Your task to perform on an android device: toggle data saver in the chrome app Image 0: 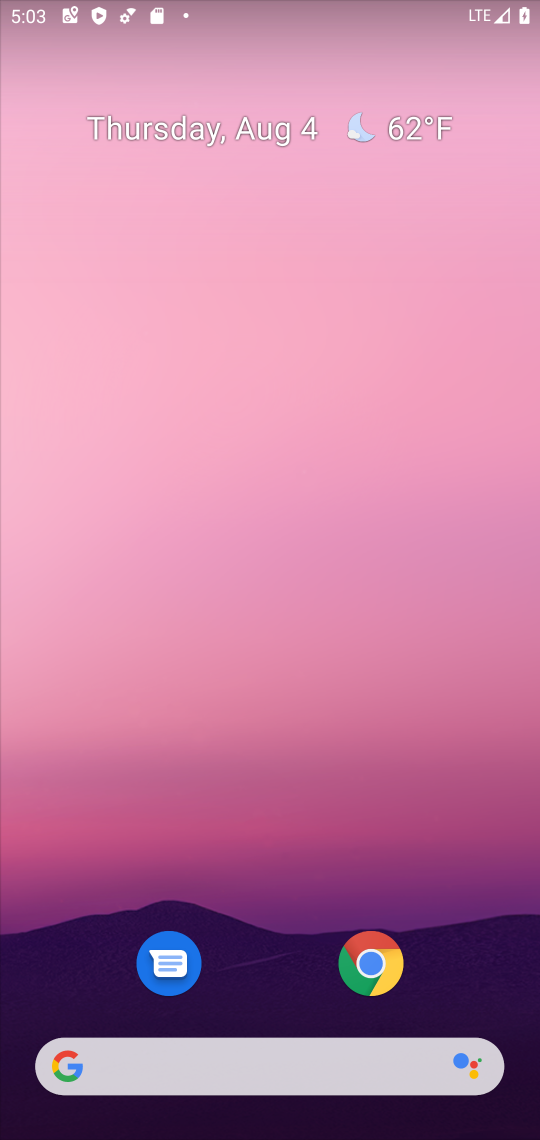
Step 0: click (385, 959)
Your task to perform on an android device: toggle data saver in the chrome app Image 1: 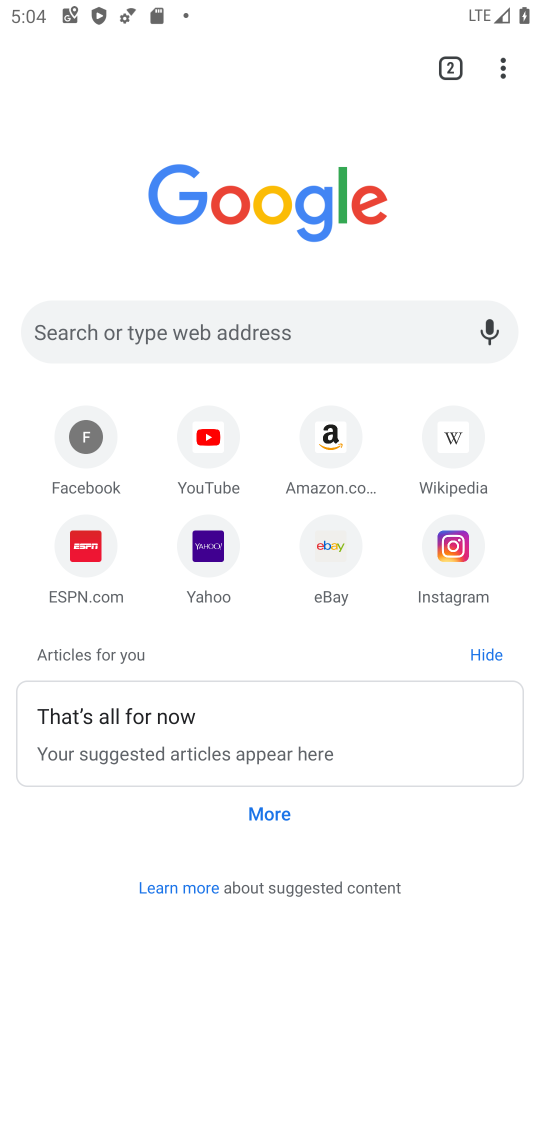
Step 1: click (505, 63)
Your task to perform on an android device: toggle data saver in the chrome app Image 2: 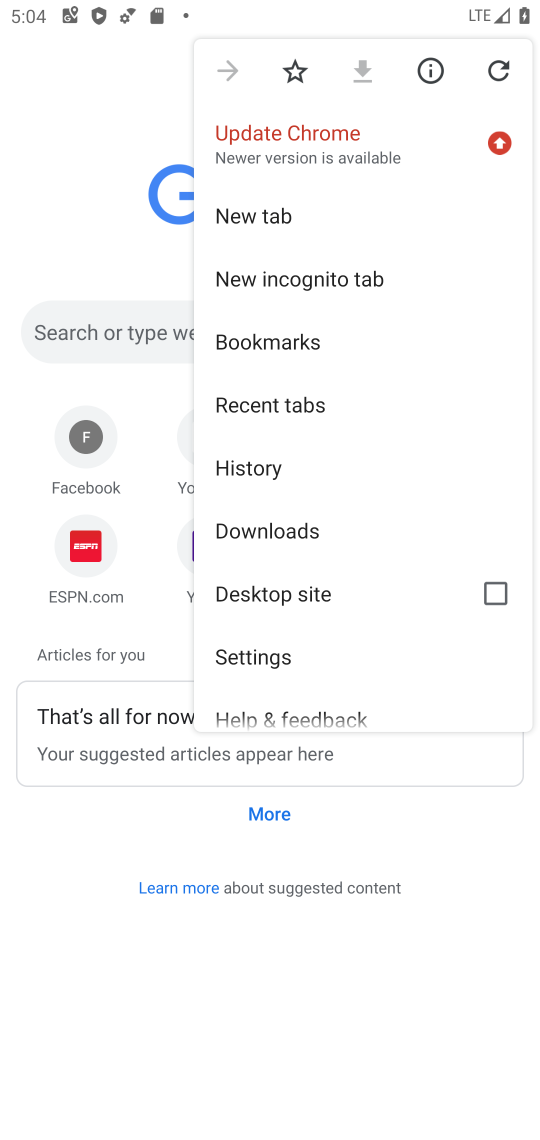
Step 2: click (246, 649)
Your task to perform on an android device: toggle data saver in the chrome app Image 3: 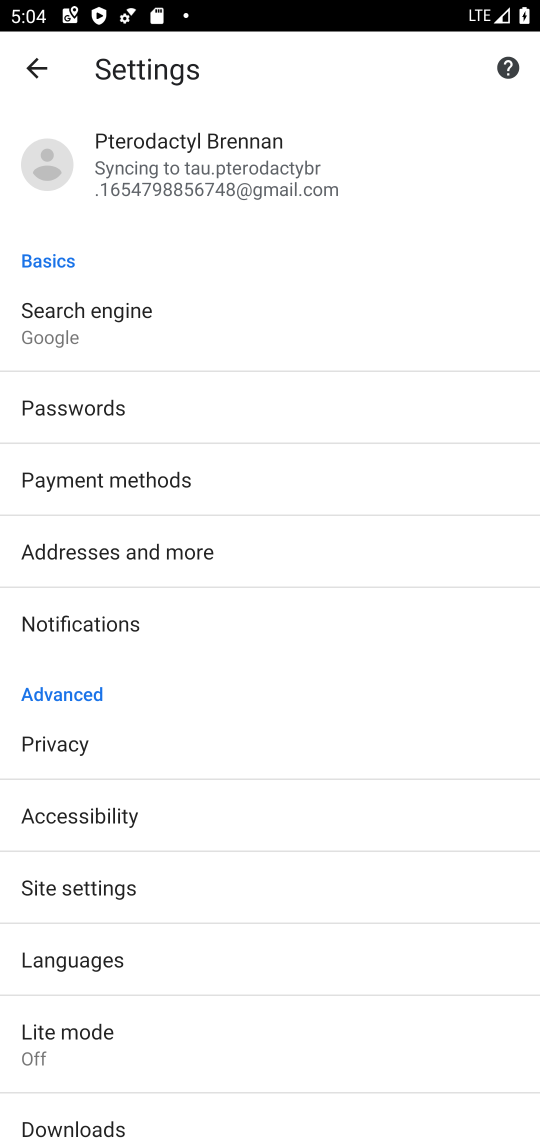
Step 3: click (73, 1035)
Your task to perform on an android device: toggle data saver in the chrome app Image 4: 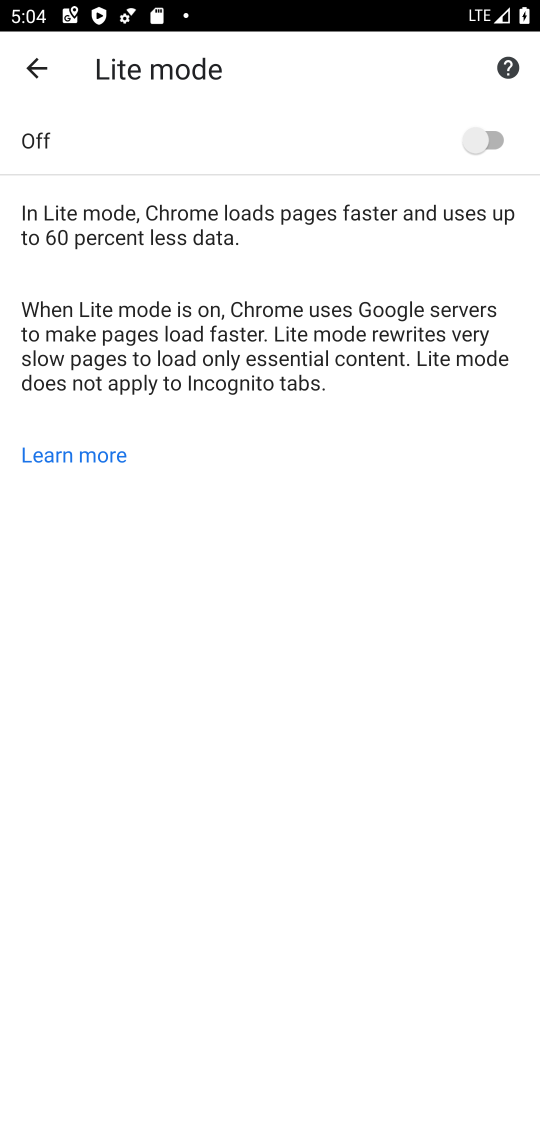
Step 4: click (480, 139)
Your task to perform on an android device: toggle data saver in the chrome app Image 5: 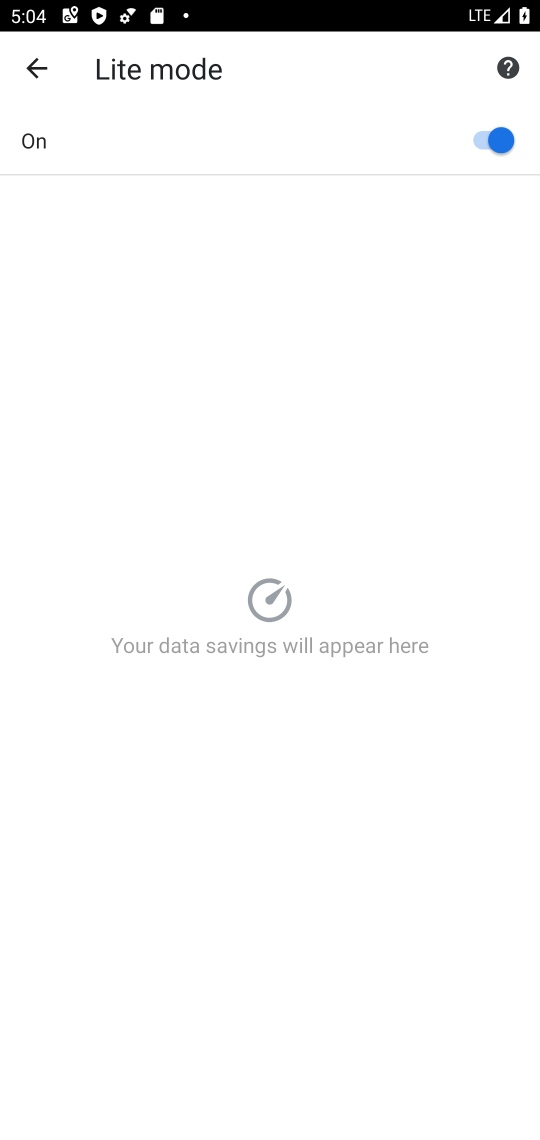
Step 5: task complete